Your task to perform on an android device: check android version Image 0: 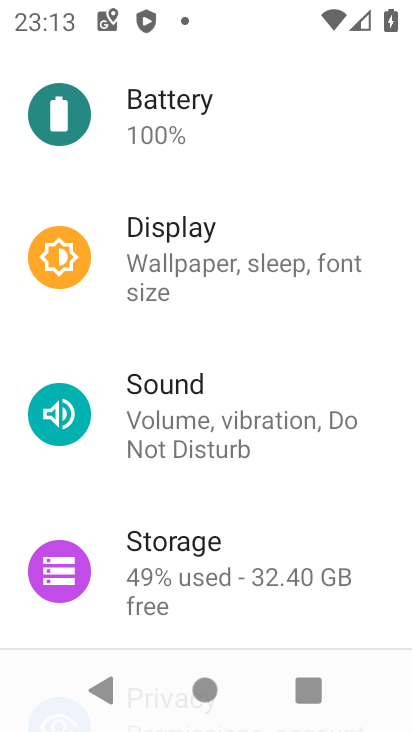
Step 0: drag from (242, 597) to (315, 121)
Your task to perform on an android device: check android version Image 1: 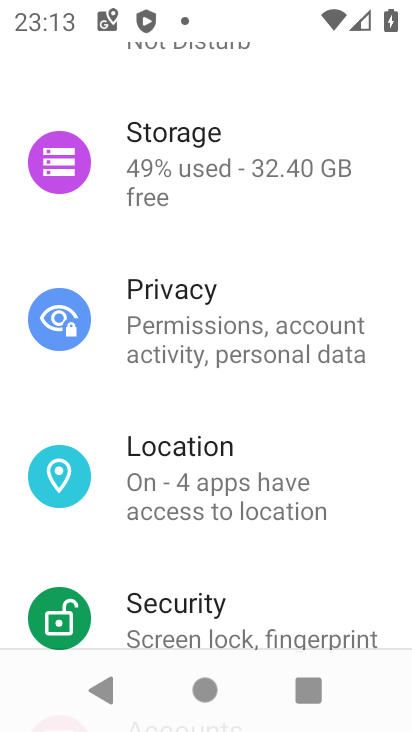
Step 1: drag from (245, 556) to (331, 132)
Your task to perform on an android device: check android version Image 2: 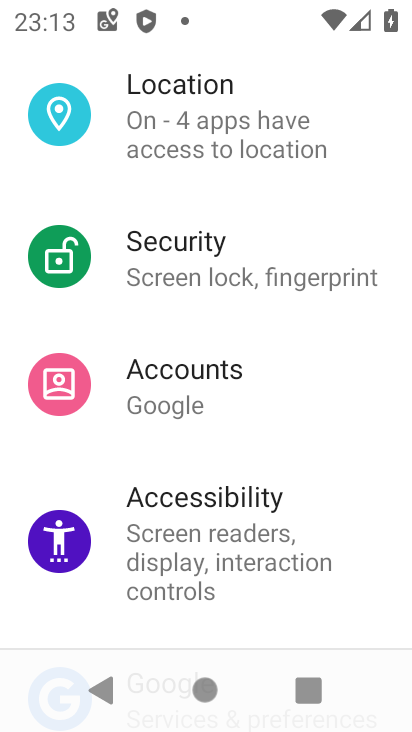
Step 2: drag from (258, 567) to (335, 140)
Your task to perform on an android device: check android version Image 3: 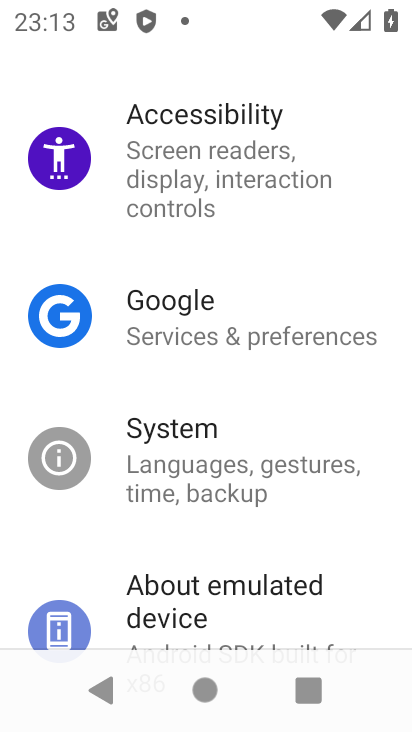
Step 3: drag from (220, 592) to (296, 242)
Your task to perform on an android device: check android version Image 4: 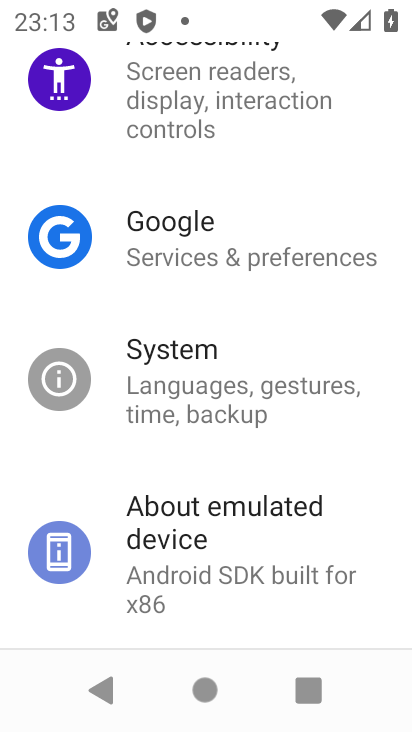
Step 4: click (236, 553)
Your task to perform on an android device: check android version Image 5: 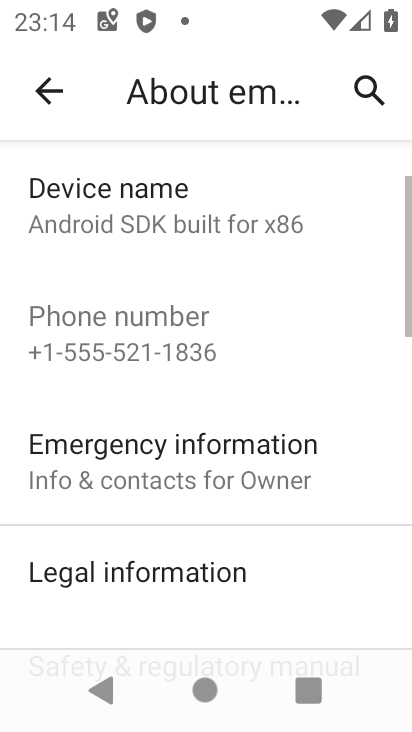
Step 5: click (209, 514)
Your task to perform on an android device: check android version Image 6: 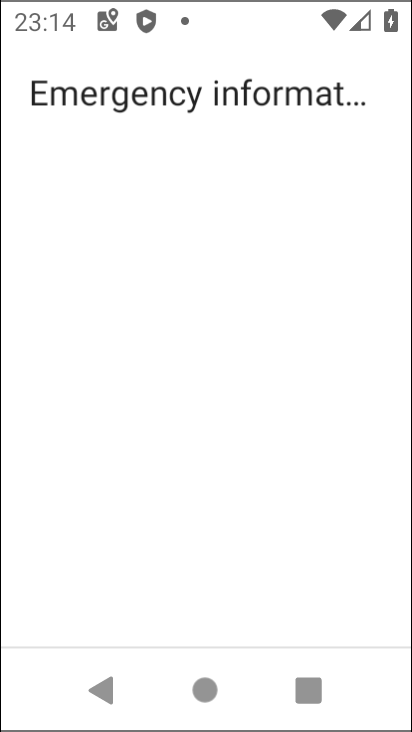
Step 6: drag from (222, 457) to (268, 270)
Your task to perform on an android device: check android version Image 7: 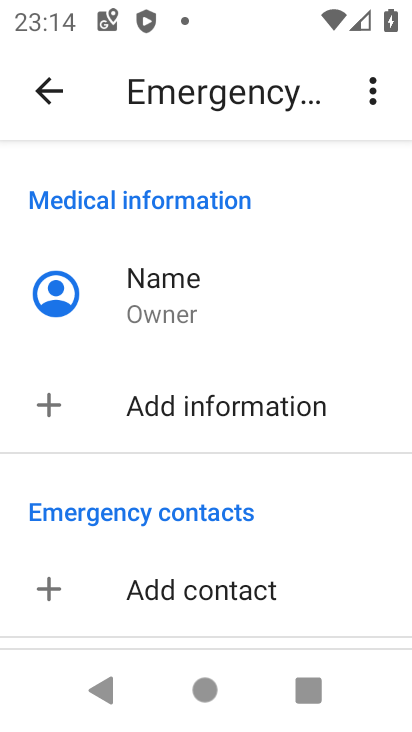
Step 7: click (58, 86)
Your task to perform on an android device: check android version Image 8: 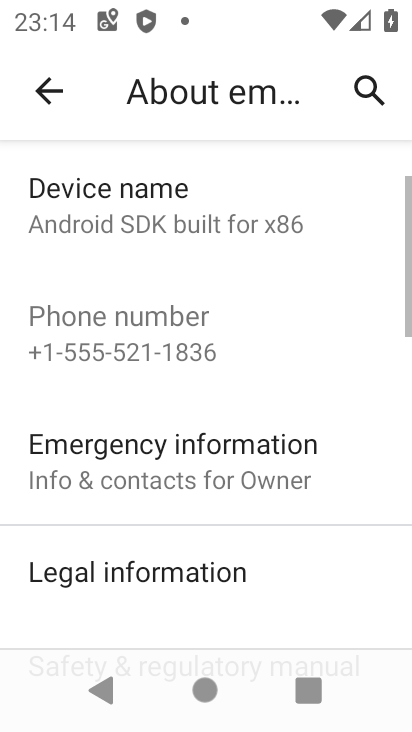
Step 8: task complete